Your task to perform on an android device: toggle notification dots Image 0: 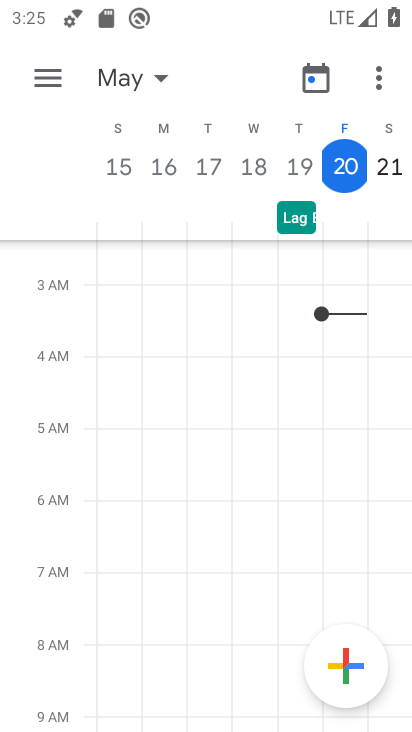
Step 0: press home button
Your task to perform on an android device: toggle notification dots Image 1: 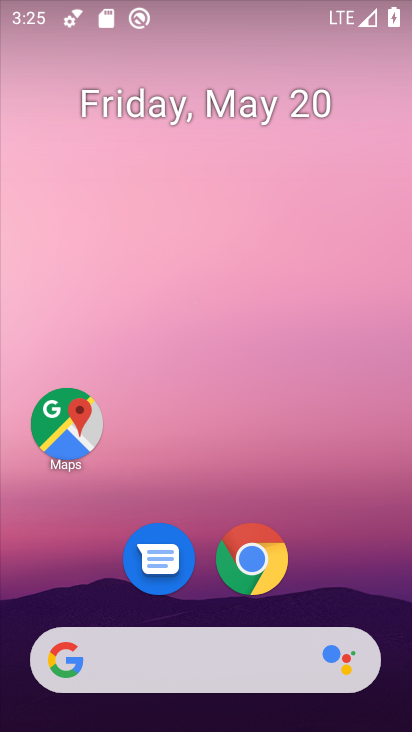
Step 1: drag from (220, 478) to (233, 41)
Your task to perform on an android device: toggle notification dots Image 2: 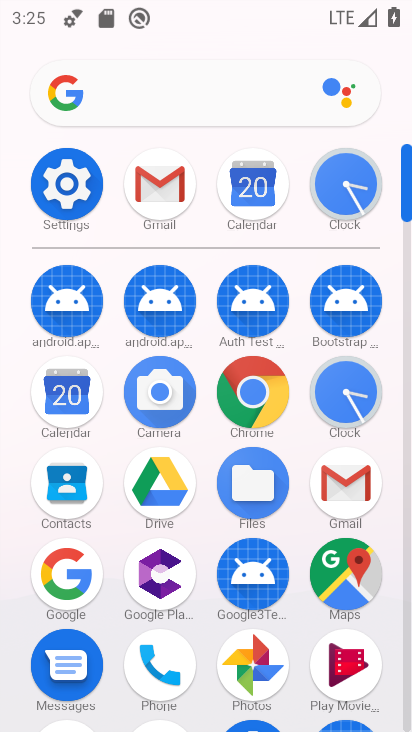
Step 2: click (75, 187)
Your task to perform on an android device: toggle notification dots Image 3: 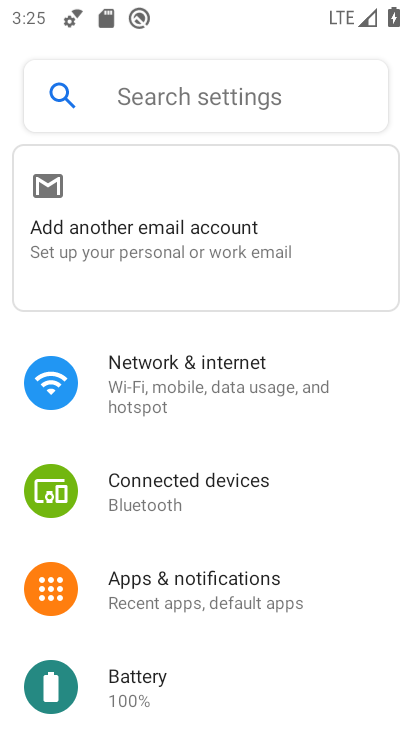
Step 3: click (158, 378)
Your task to perform on an android device: toggle notification dots Image 4: 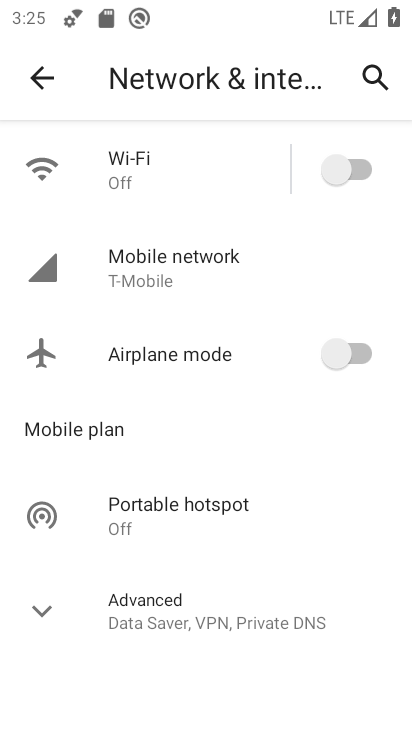
Step 4: click (50, 85)
Your task to perform on an android device: toggle notification dots Image 5: 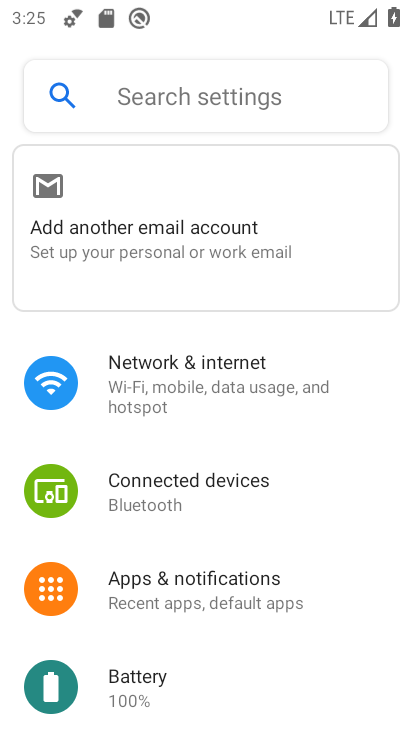
Step 5: click (200, 599)
Your task to perform on an android device: toggle notification dots Image 6: 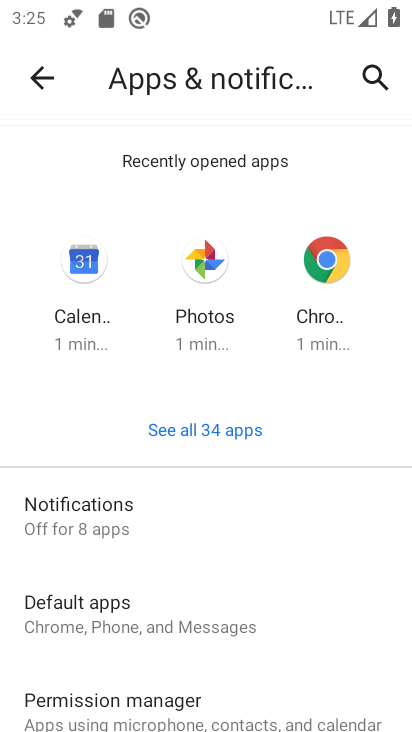
Step 6: click (135, 512)
Your task to perform on an android device: toggle notification dots Image 7: 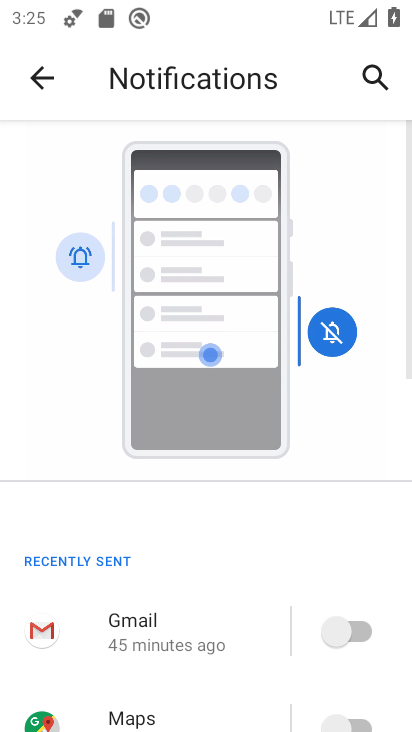
Step 7: drag from (260, 573) to (236, 71)
Your task to perform on an android device: toggle notification dots Image 8: 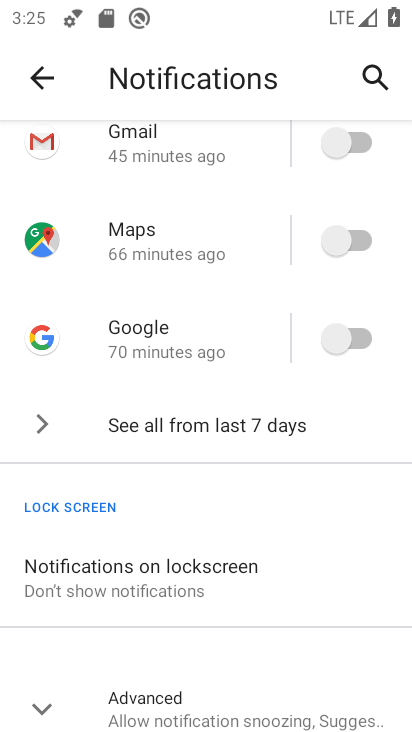
Step 8: click (45, 711)
Your task to perform on an android device: toggle notification dots Image 9: 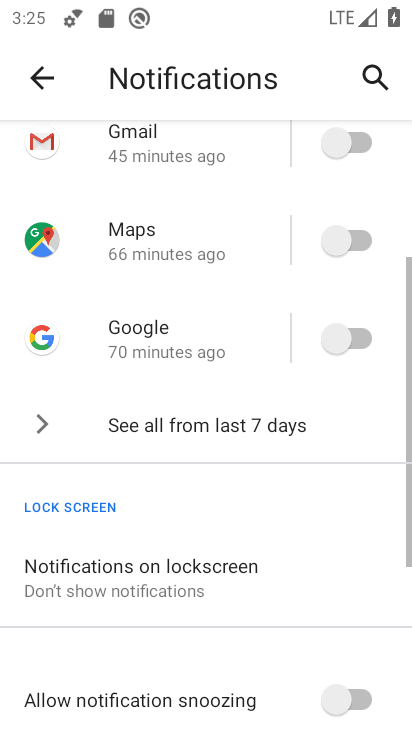
Step 9: drag from (228, 531) to (234, 65)
Your task to perform on an android device: toggle notification dots Image 10: 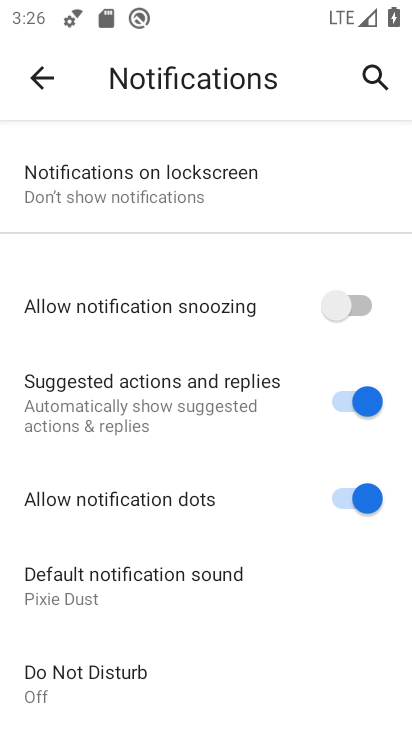
Step 10: click (344, 491)
Your task to perform on an android device: toggle notification dots Image 11: 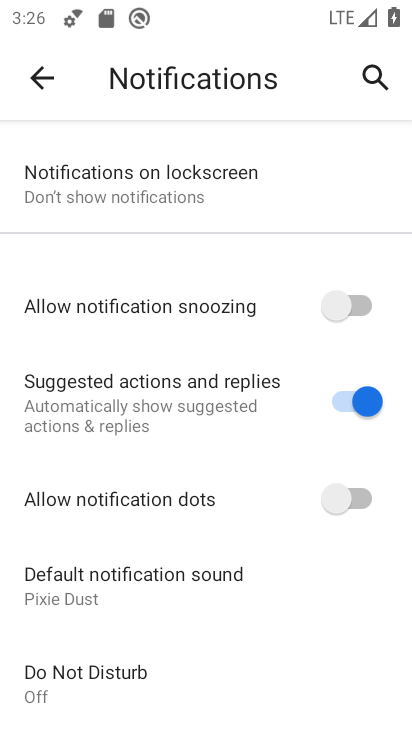
Step 11: task complete